Your task to perform on an android device: What is the recent news? Image 0: 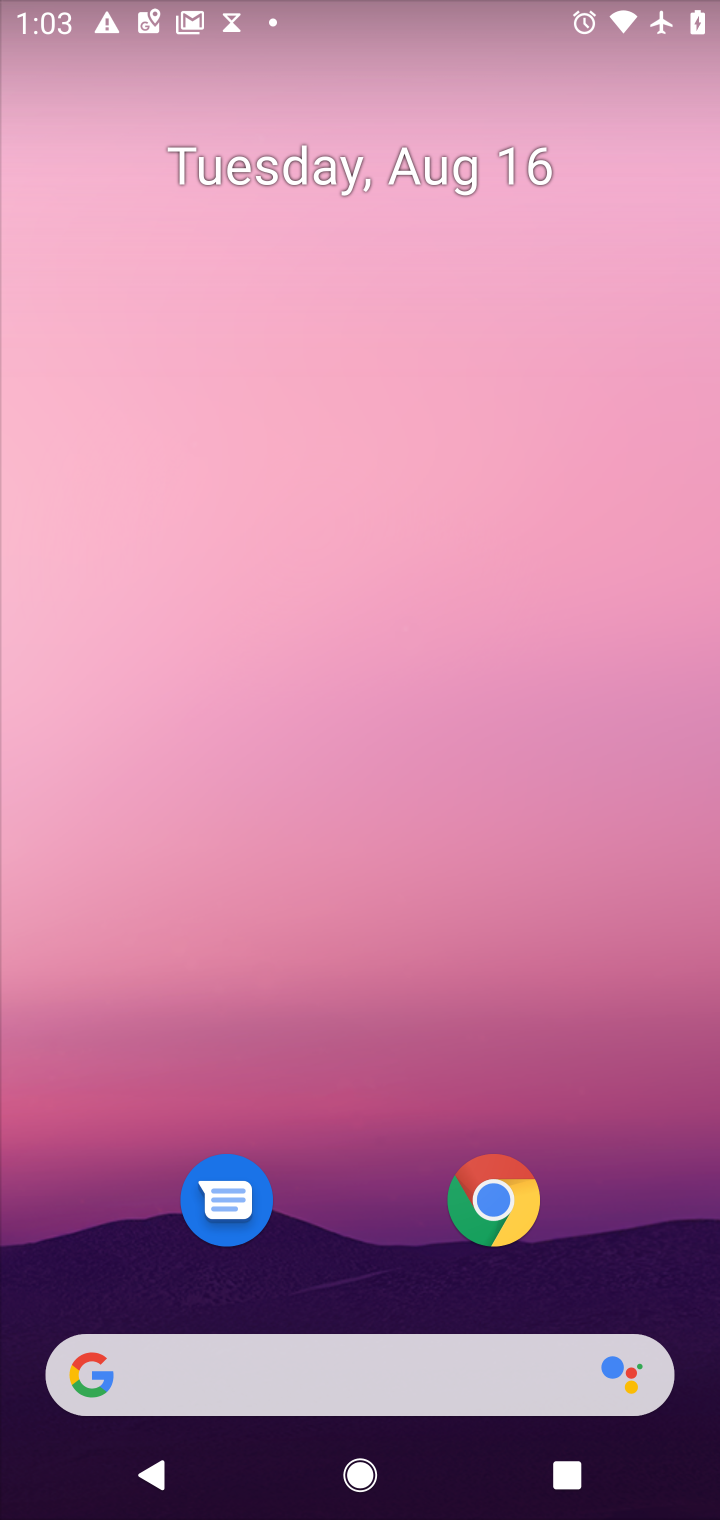
Step 0: drag from (295, 674) to (295, 292)
Your task to perform on an android device: What is the recent news? Image 1: 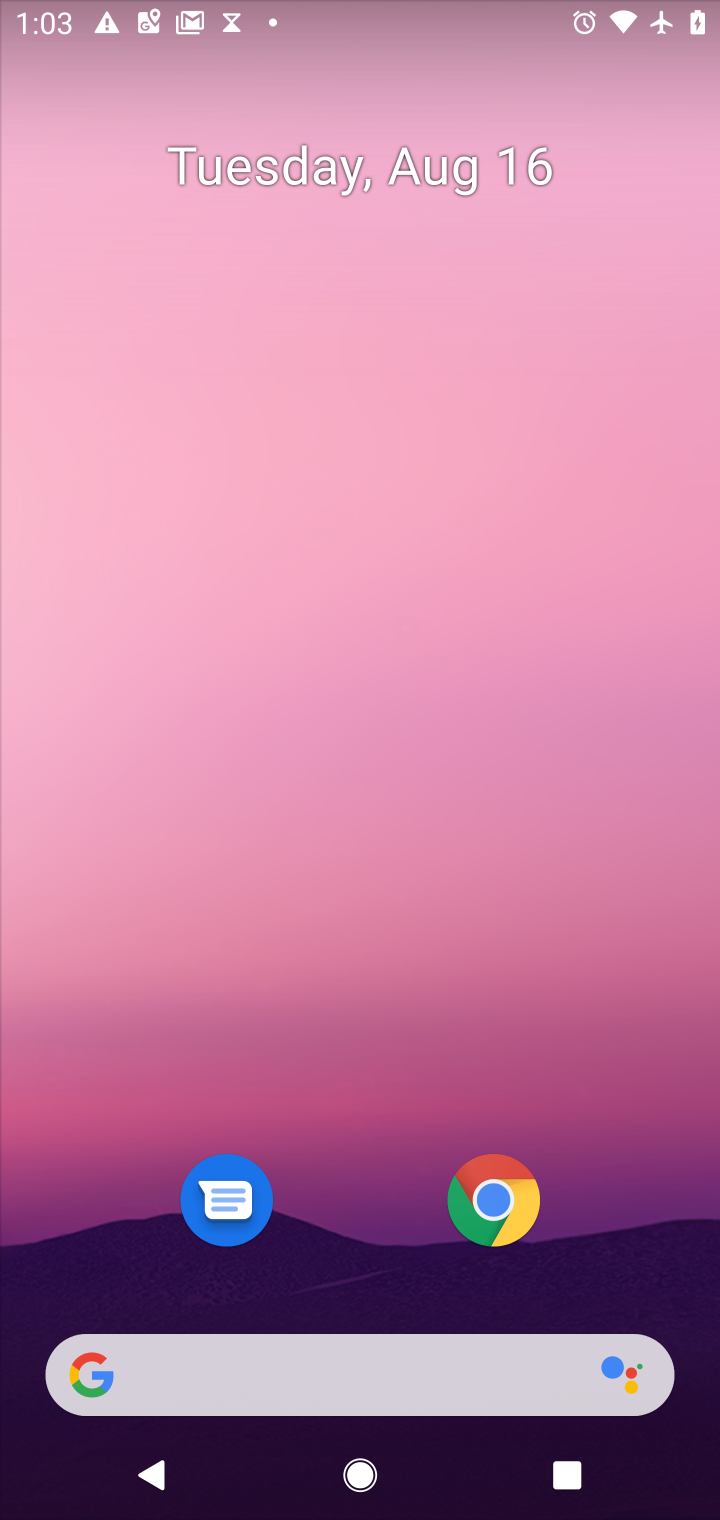
Step 1: drag from (386, 1215) to (374, 50)
Your task to perform on an android device: What is the recent news? Image 2: 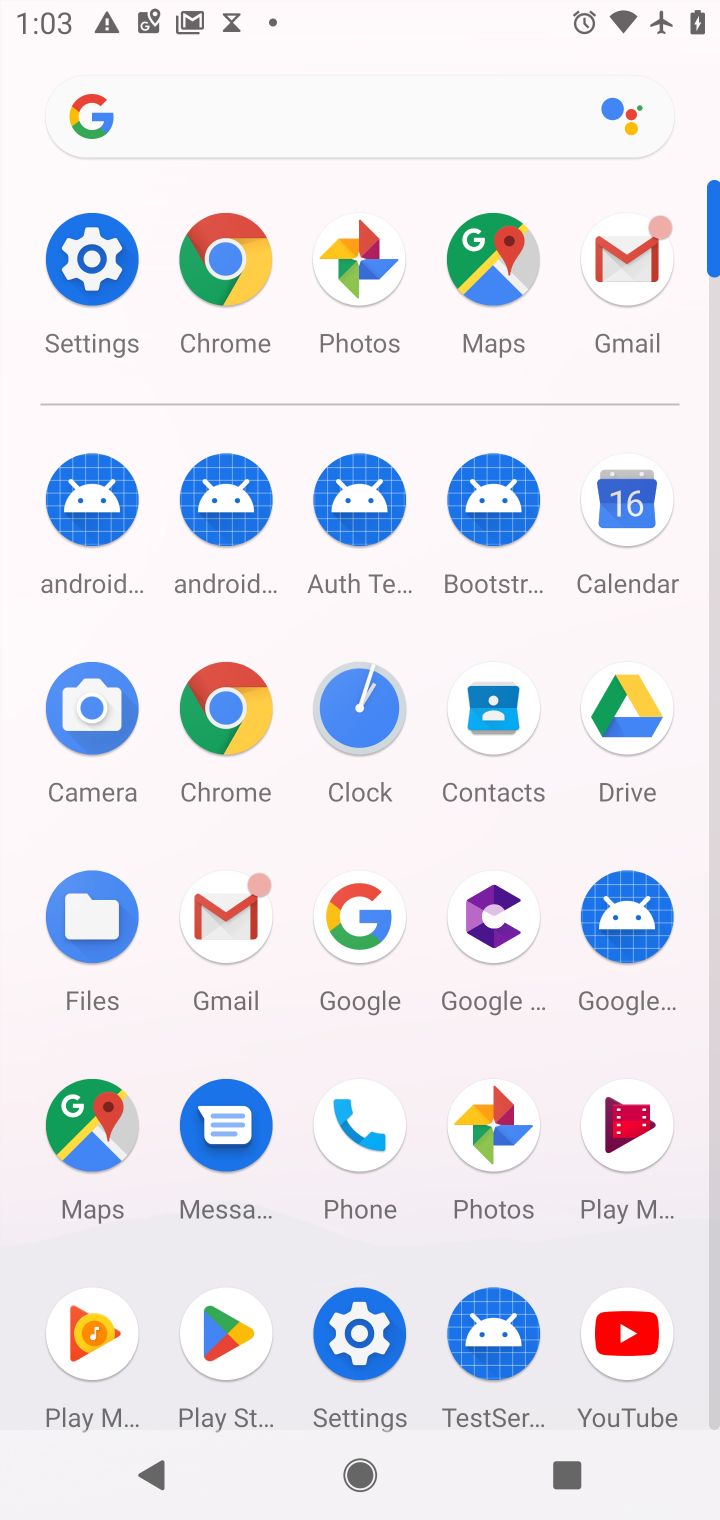
Step 2: click (363, 940)
Your task to perform on an android device: What is the recent news? Image 3: 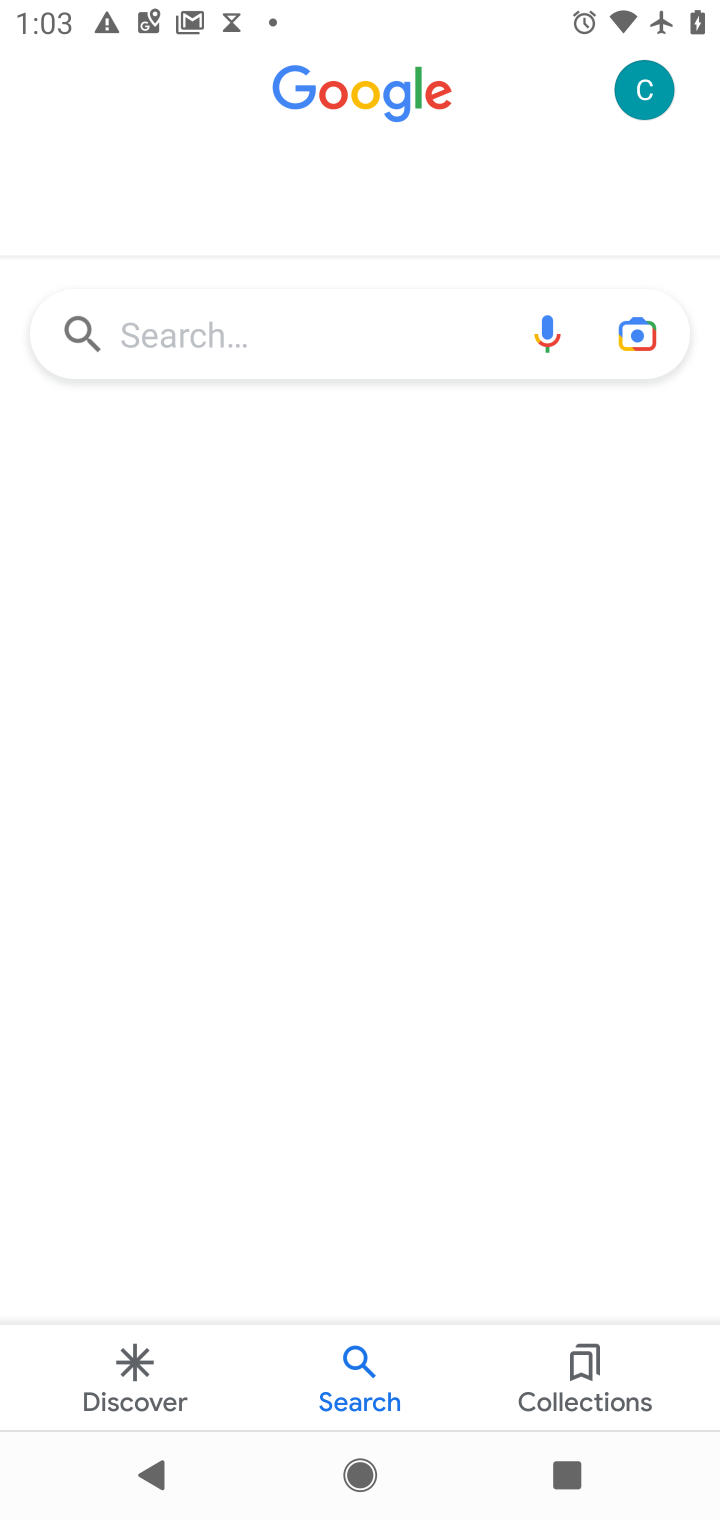
Step 3: click (311, 358)
Your task to perform on an android device: What is the recent news? Image 4: 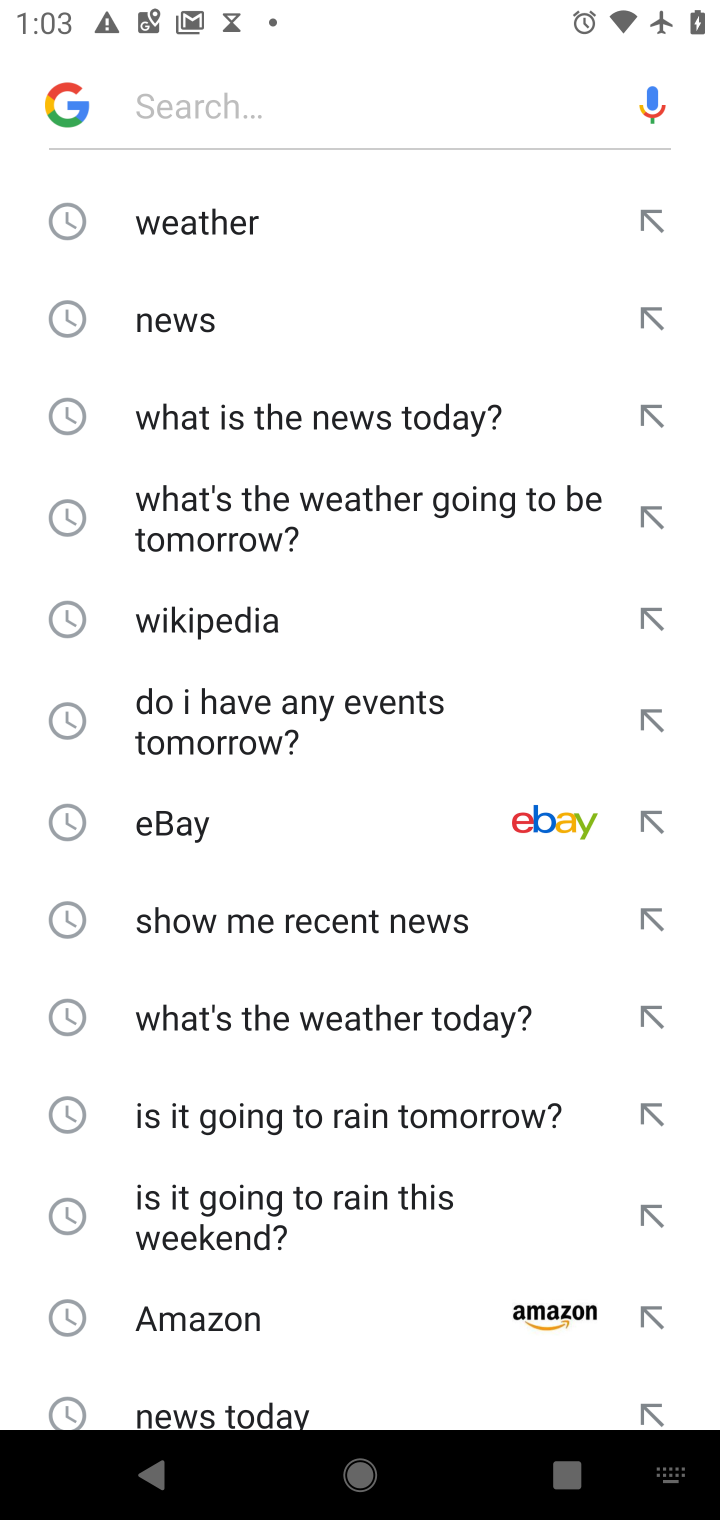
Step 4: click (253, 320)
Your task to perform on an android device: What is the recent news? Image 5: 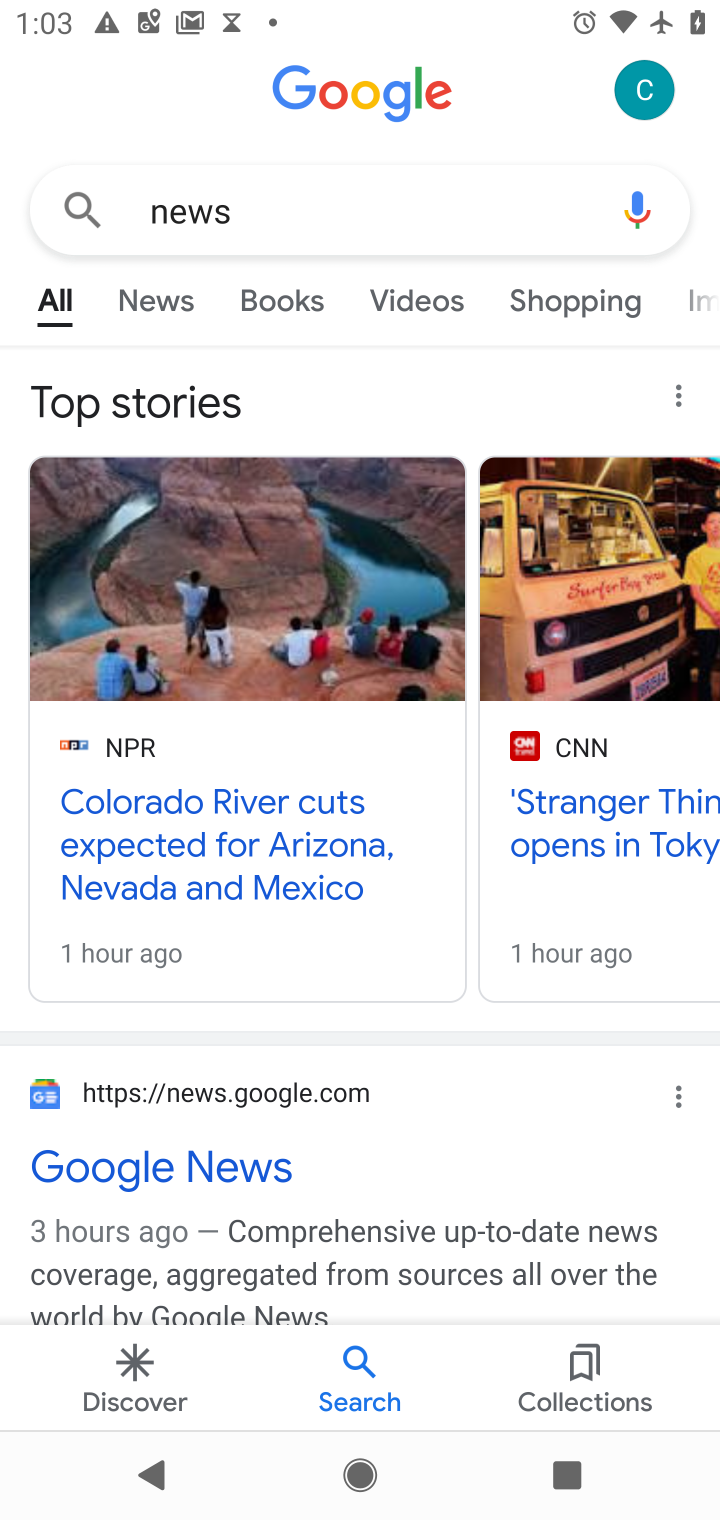
Step 5: click (166, 302)
Your task to perform on an android device: What is the recent news? Image 6: 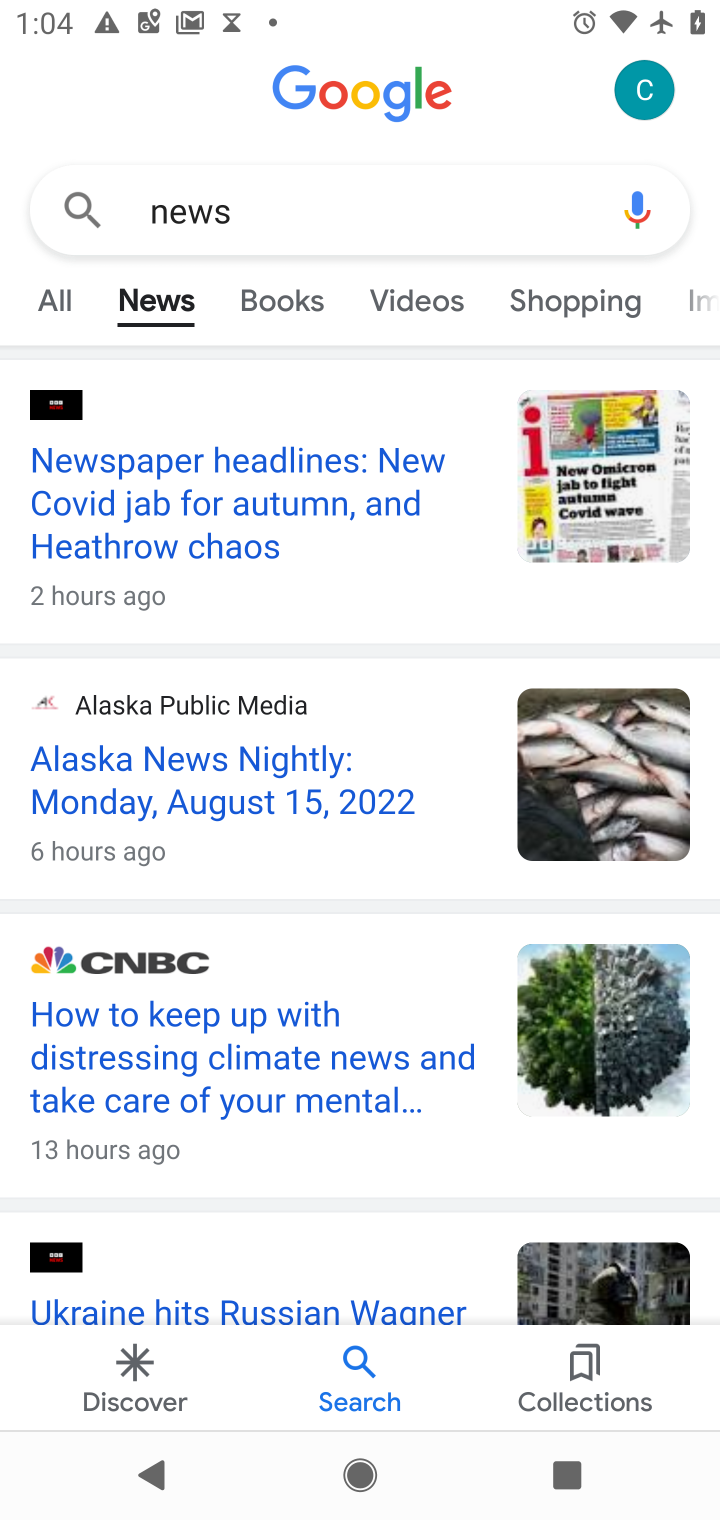
Step 6: task complete